Your task to perform on an android device: open app "Google News" (install if not already installed) Image 0: 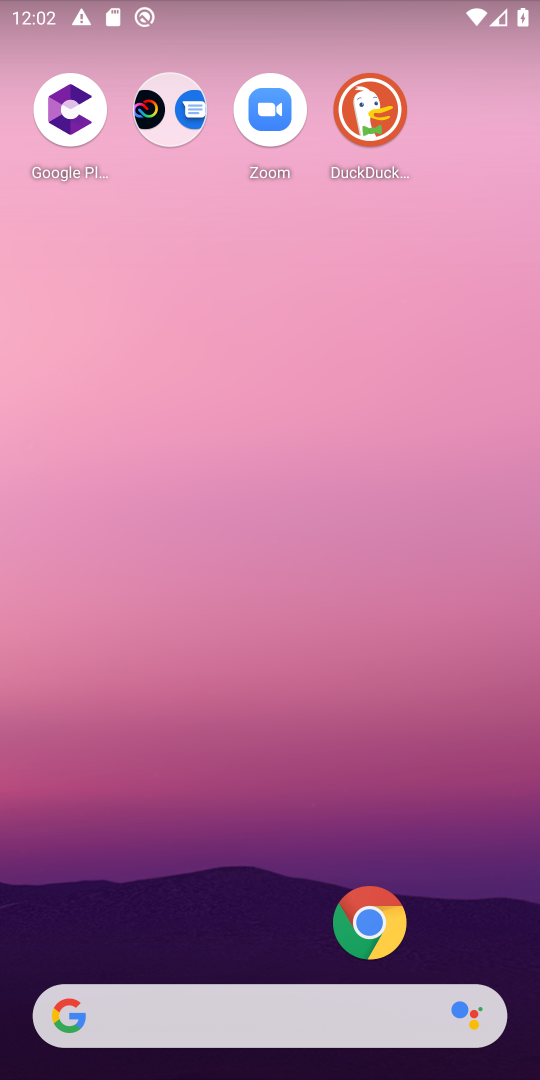
Step 0: drag from (227, 927) to (198, 178)
Your task to perform on an android device: open app "Google News" (install if not already installed) Image 1: 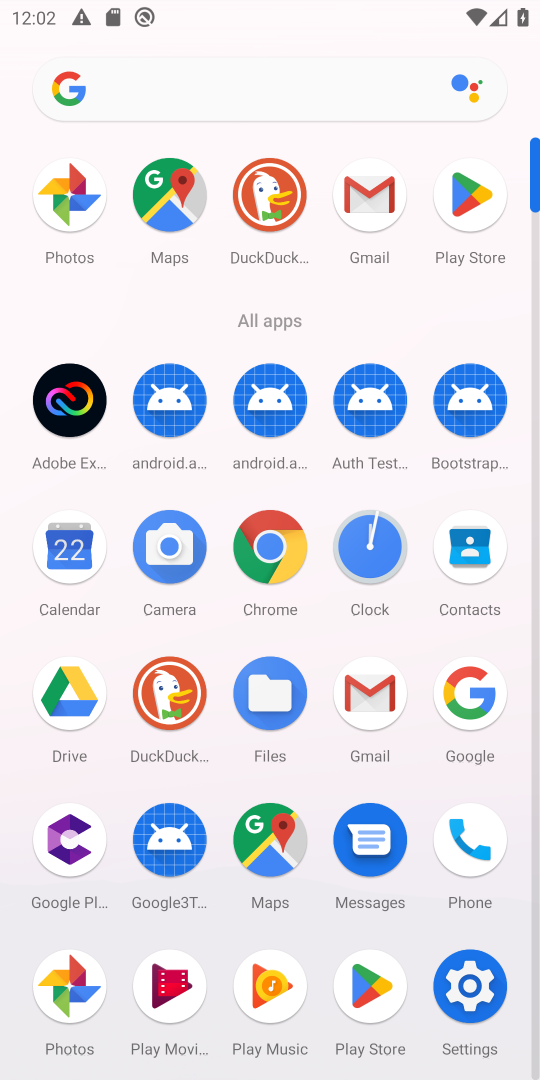
Step 1: click (462, 209)
Your task to perform on an android device: open app "Google News" (install if not already installed) Image 2: 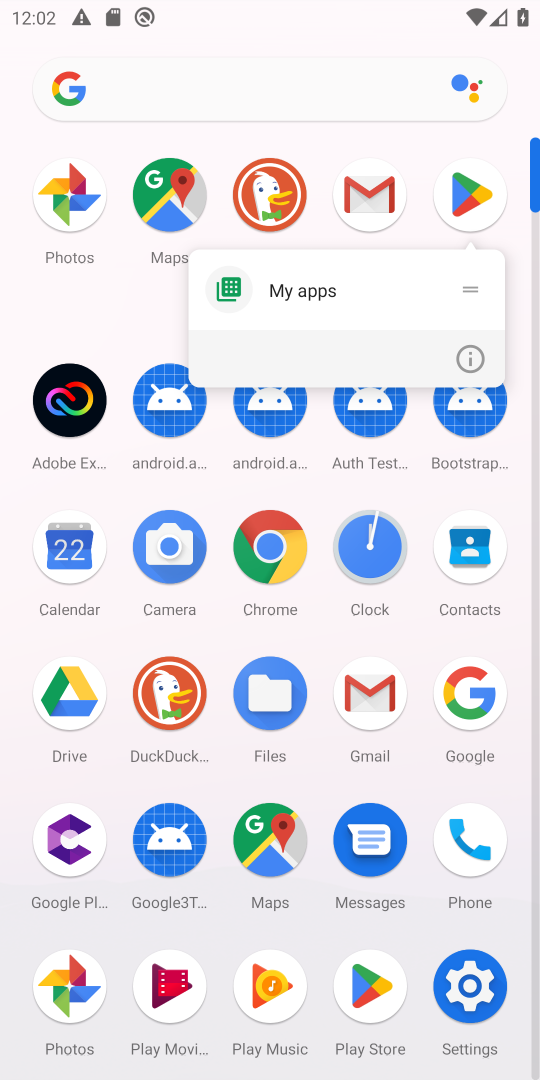
Step 2: click (463, 206)
Your task to perform on an android device: open app "Google News" (install if not already installed) Image 3: 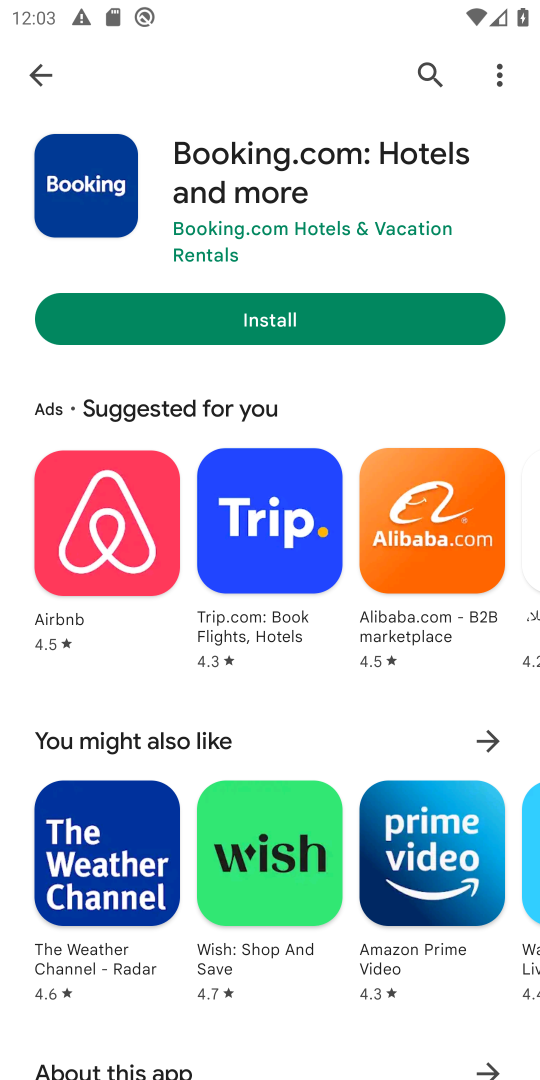
Step 3: click (429, 74)
Your task to perform on an android device: open app "Google News" (install if not already installed) Image 4: 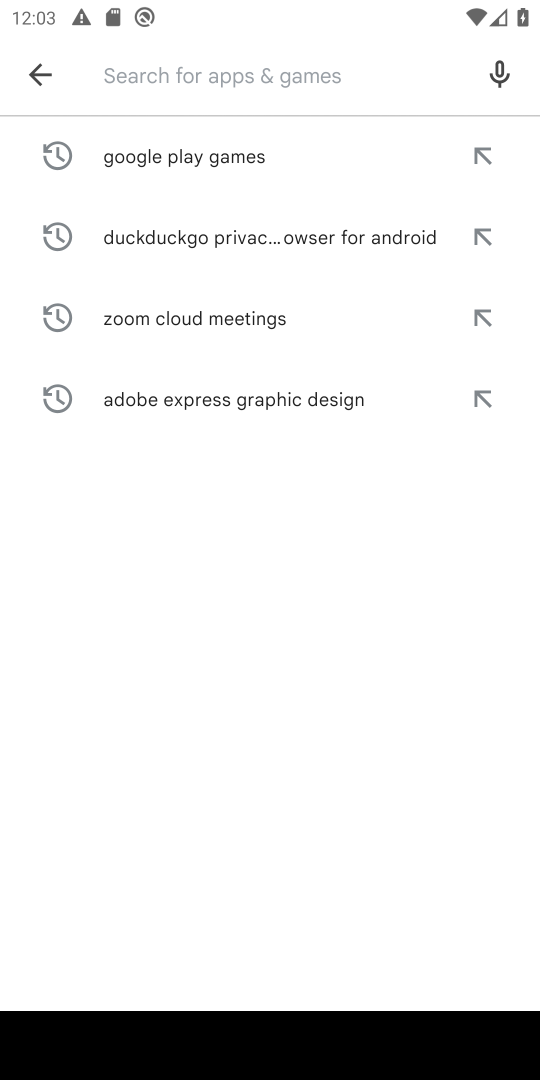
Step 4: type "Google News"
Your task to perform on an android device: open app "Google News" (install if not already installed) Image 5: 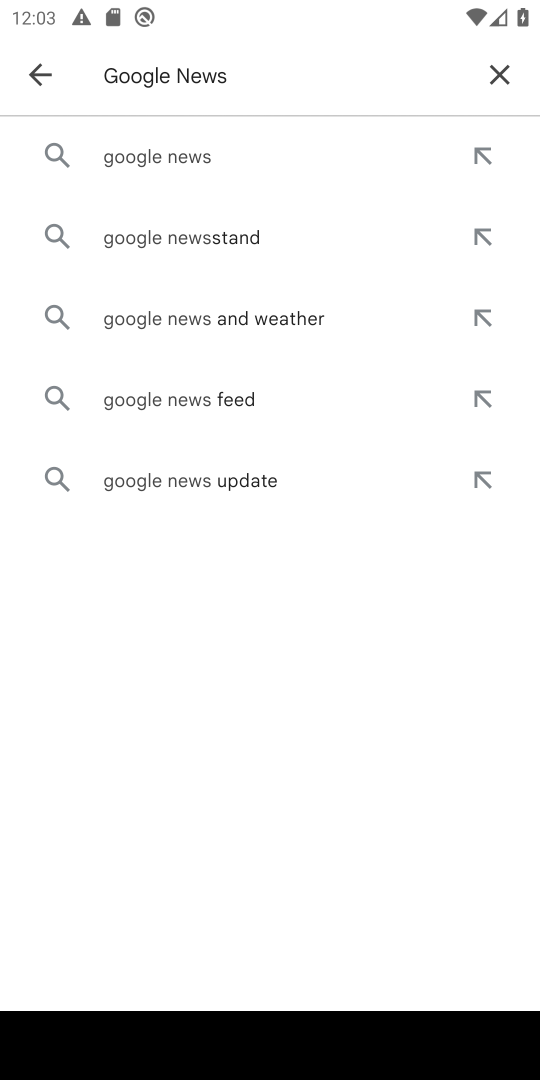
Step 5: click (133, 150)
Your task to perform on an android device: open app "Google News" (install if not already installed) Image 6: 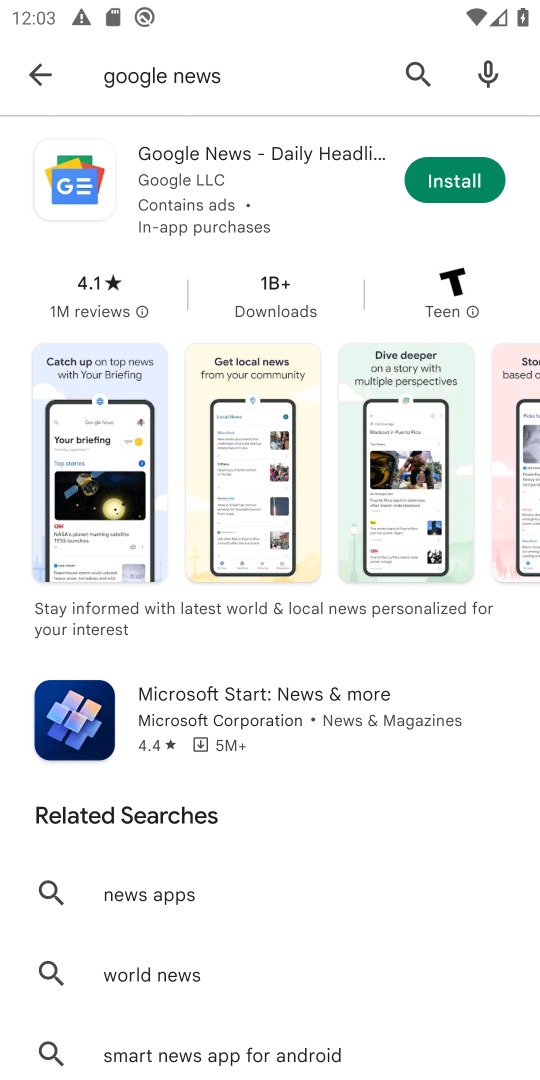
Step 6: click (468, 192)
Your task to perform on an android device: open app "Google News" (install if not already installed) Image 7: 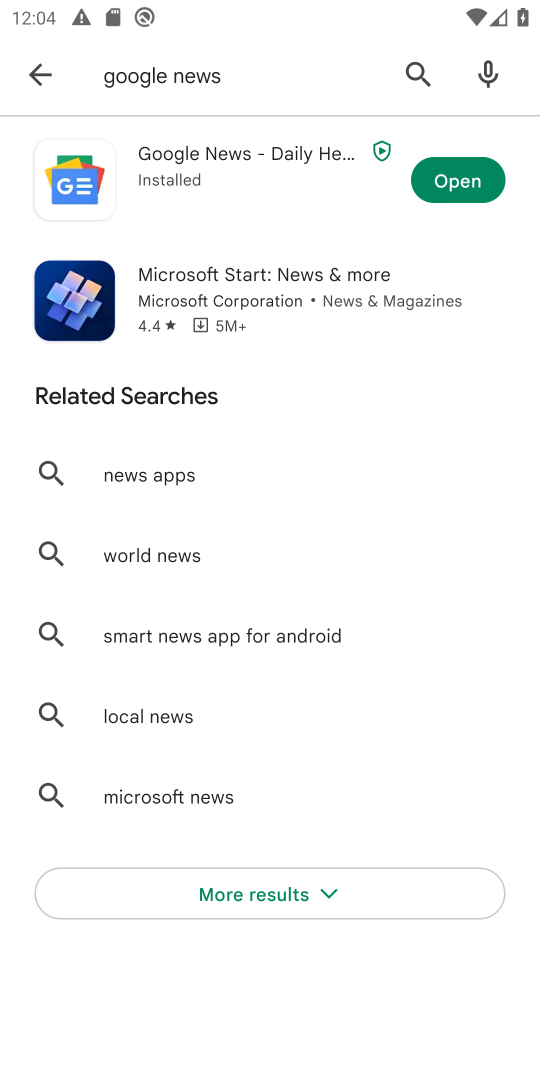
Step 7: click (444, 191)
Your task to perform on an android device: open app "Google News" (install if not already installed) Image 8: 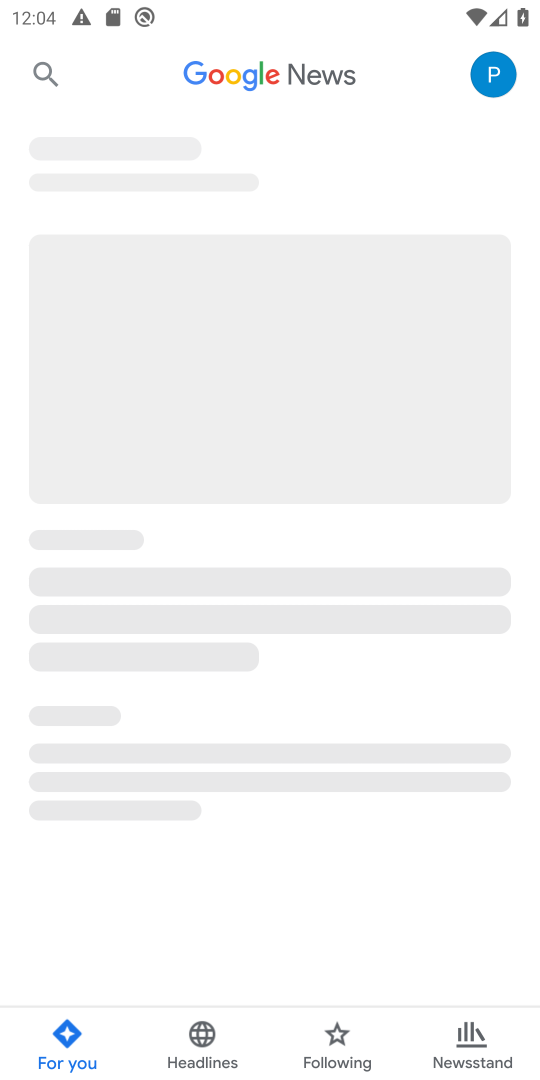
Step 8: task complete